Your task to perform on an android device: Open Chrome and go to settings Image 0: 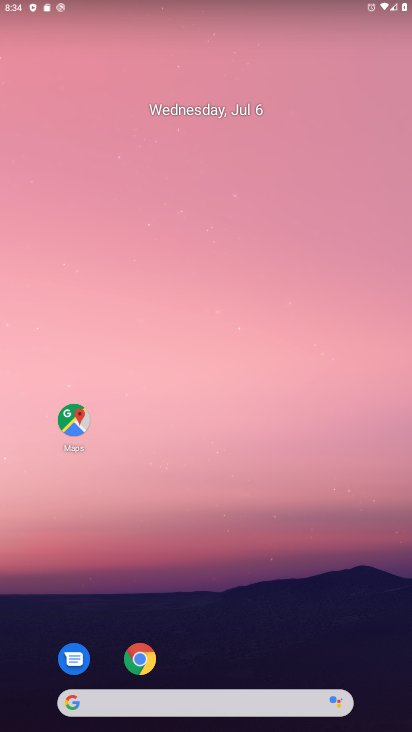
Step 0: drag from (263, 726) to (28, 259)
Your task to perform on an android device: Open Chrome and go to settings Image 1: 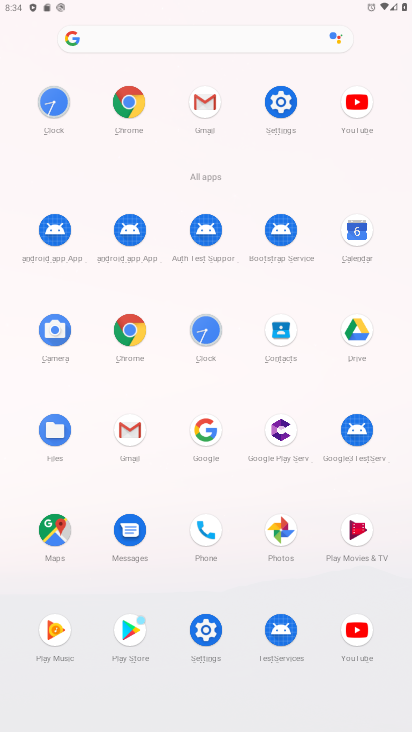
Step 1: drag from (198, 705) to (188, 549)
Your task to perform on an android device: Open Chrome and go to settings Image 2: 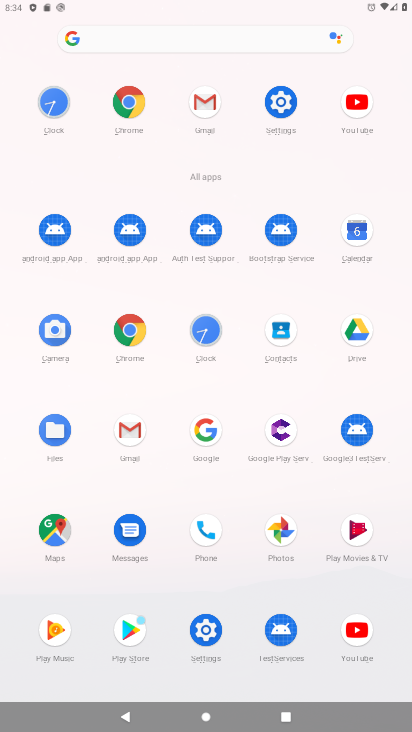
Step 2: click (129, 343)
Your task to perform on an android device: Open Chrome and go to settings Image 3: 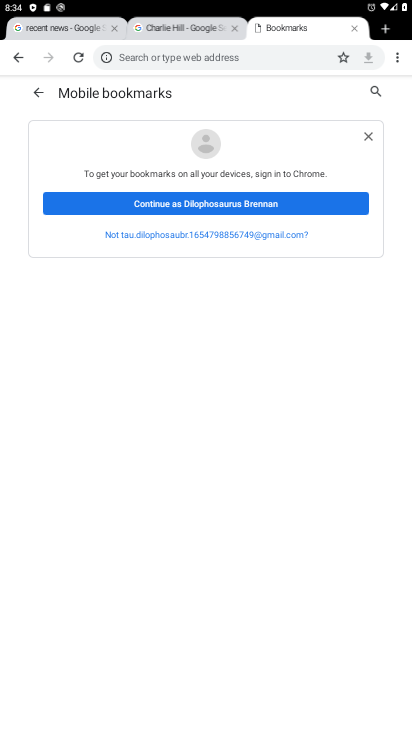
Step 3: click (392, 51)
Your task to perform on an android device: Open Chrome and go to settings Image 4: 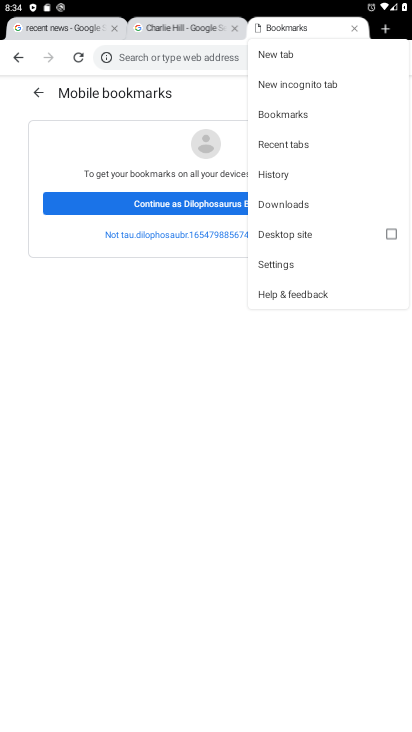
Step 4: click (296, 265)
Your task to perform on an android device: Open Chrome and go to settings Image 5: 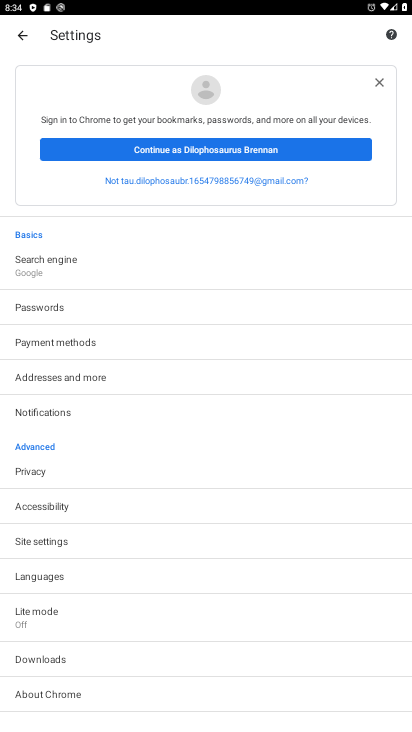
Step 5: task complete